Your task to perform on an android device: manage bookmarks in the chrome app Image 0: 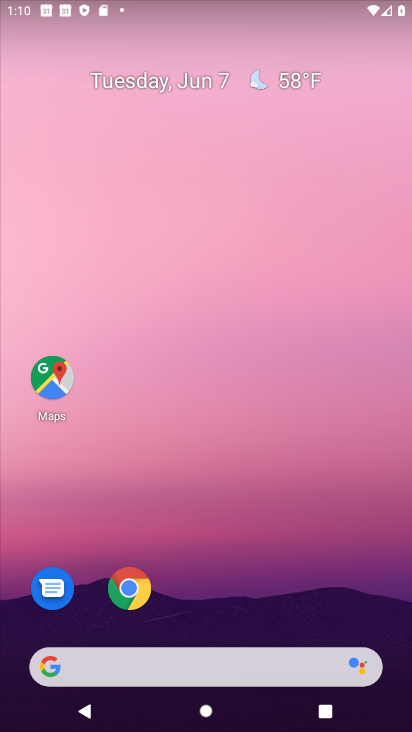
Step 0: click (126, 573)
Your task to perform on an android device: manage bookmarks in the chrome app Image 1: 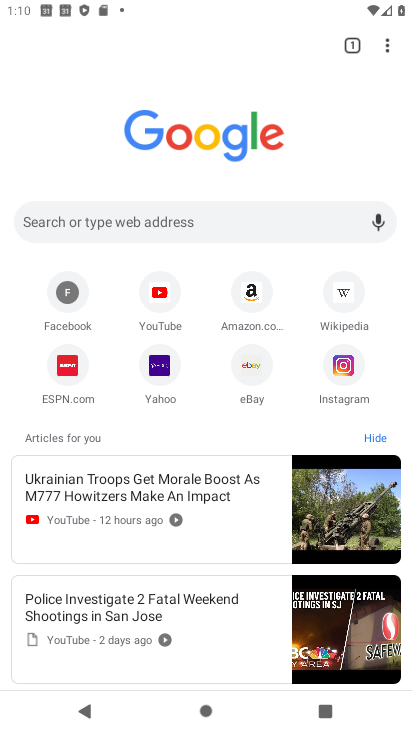
Step 1: task complete